Your task to perform on an android device: Empty the shopping cart on target.com. Search for "panasonic triple a" on target.com, select the first entry, add it to the cart, then select checkout. Image 0: 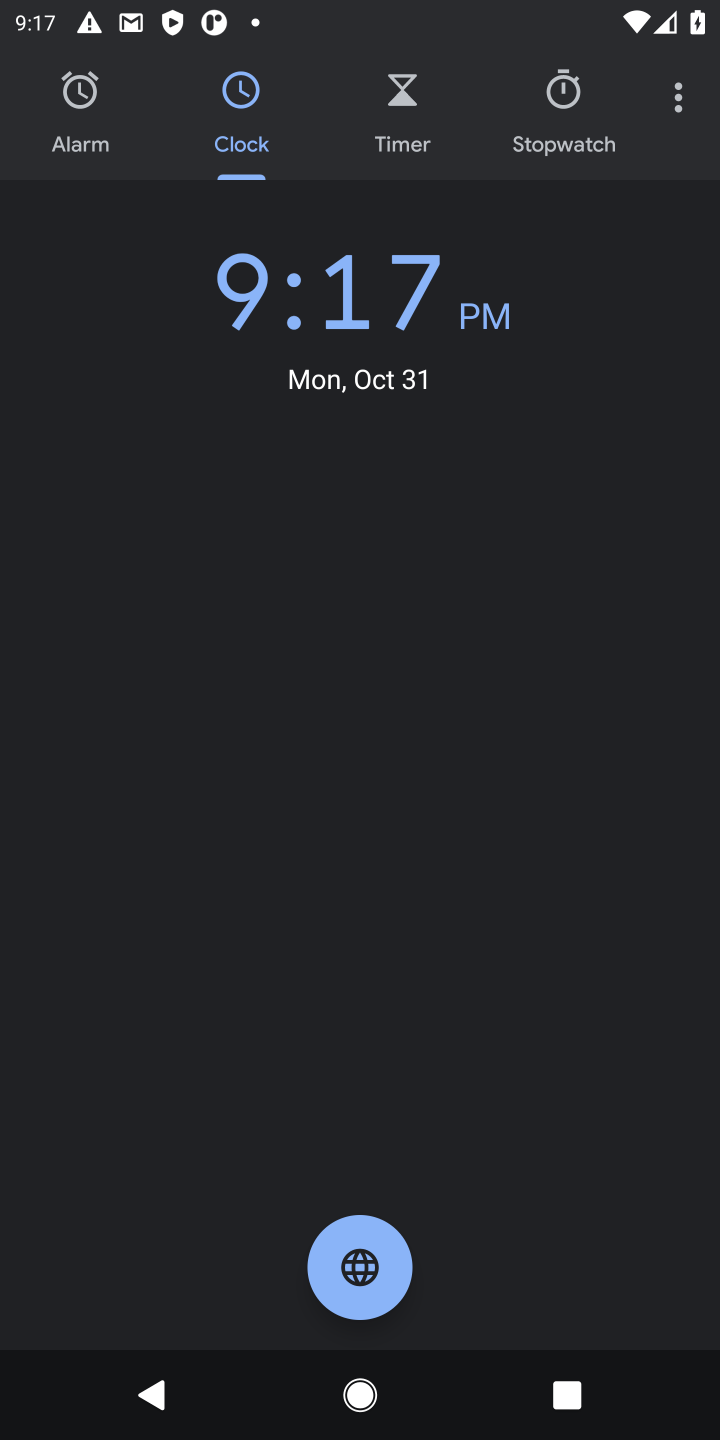
Step 0: press home button
Your task to perform on an android device: Empty the shopping cart on target.com. Search for "panasonic triple a" on target.com, select the first entry, add it to the cart, then select checkout. Image 1: 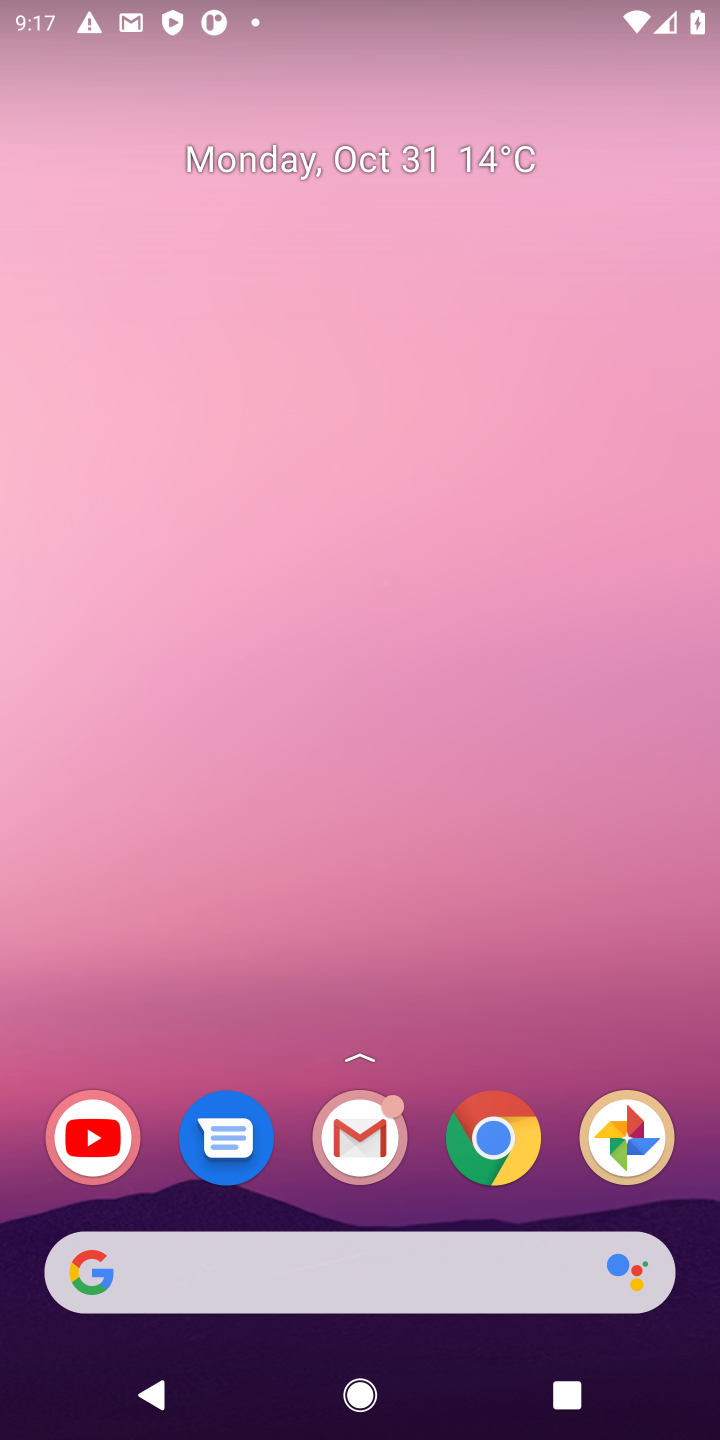
Step 1: click (501, 1130)
Your task to perform on an android device: Empty the shopping cart on target.com. Search for "panasonic triple a" on target.com, select the first entry, add it to the cart, then select checkout. Image 2: 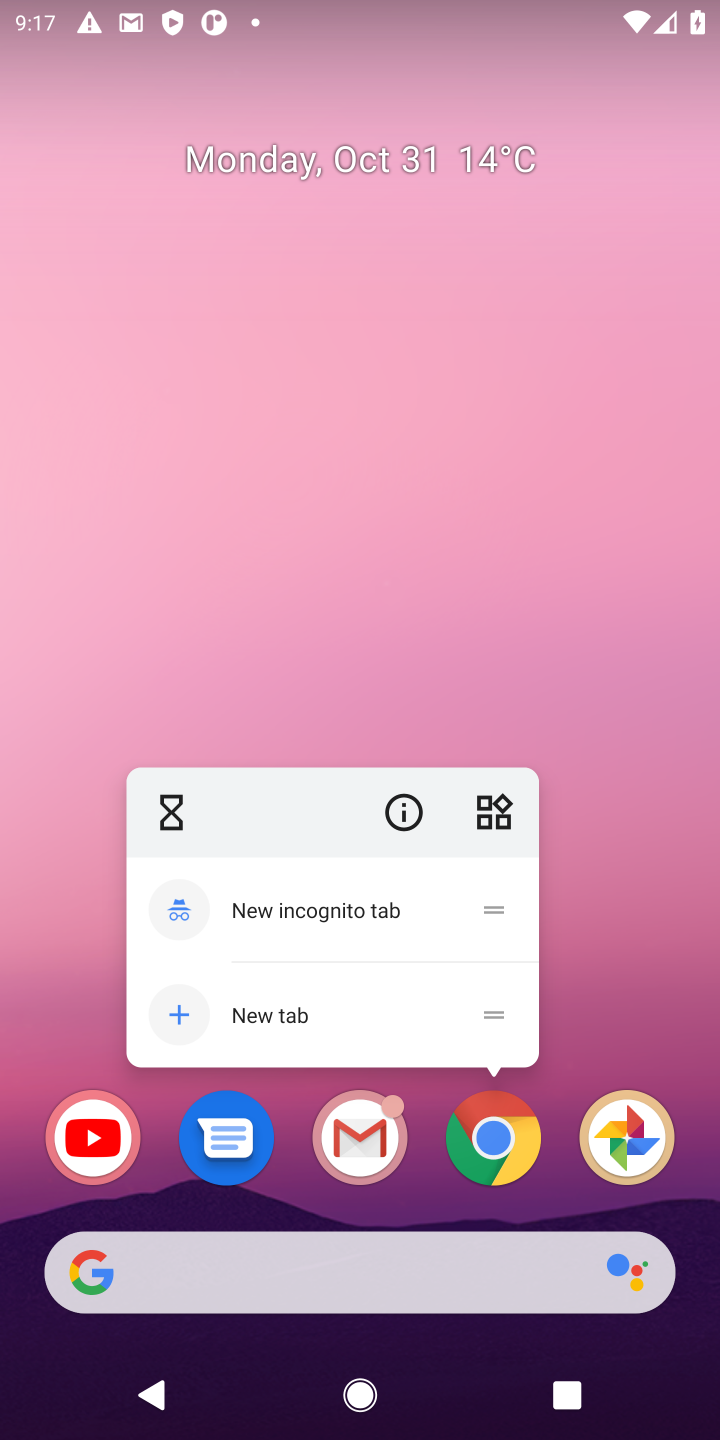
Step 2: click (514, 1125)
Your task to perform on an android device: Empty the shopping cart on target.com. Search for "panasonic triple a" on target.com, select the first entry, add it to the cart, then select checkout. Image 3: 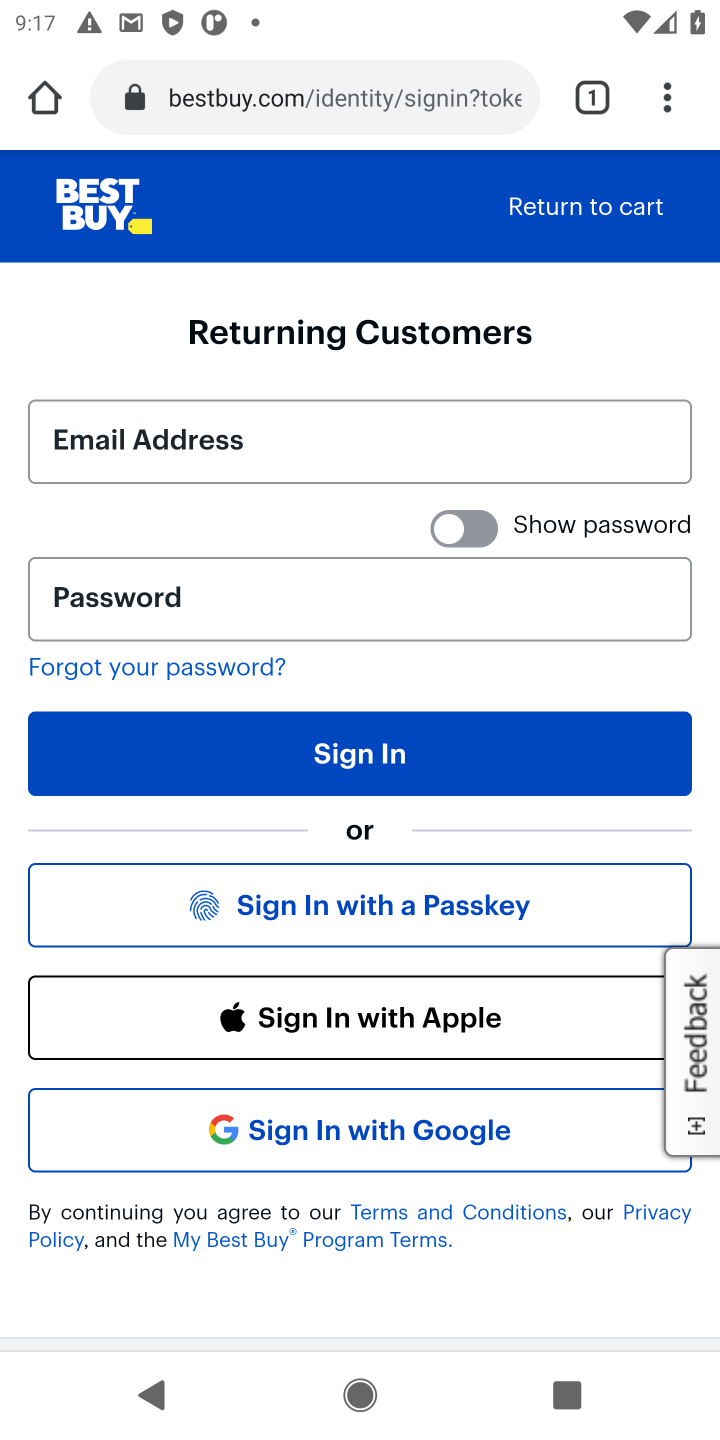
Step 3: click (239, 82)
Your task to perform on an android device: Empty the shopping cart on target.com. Search for "panasonic triple a" on target.com, select the first entry, add it to the cart, then select checkout. Image 4: 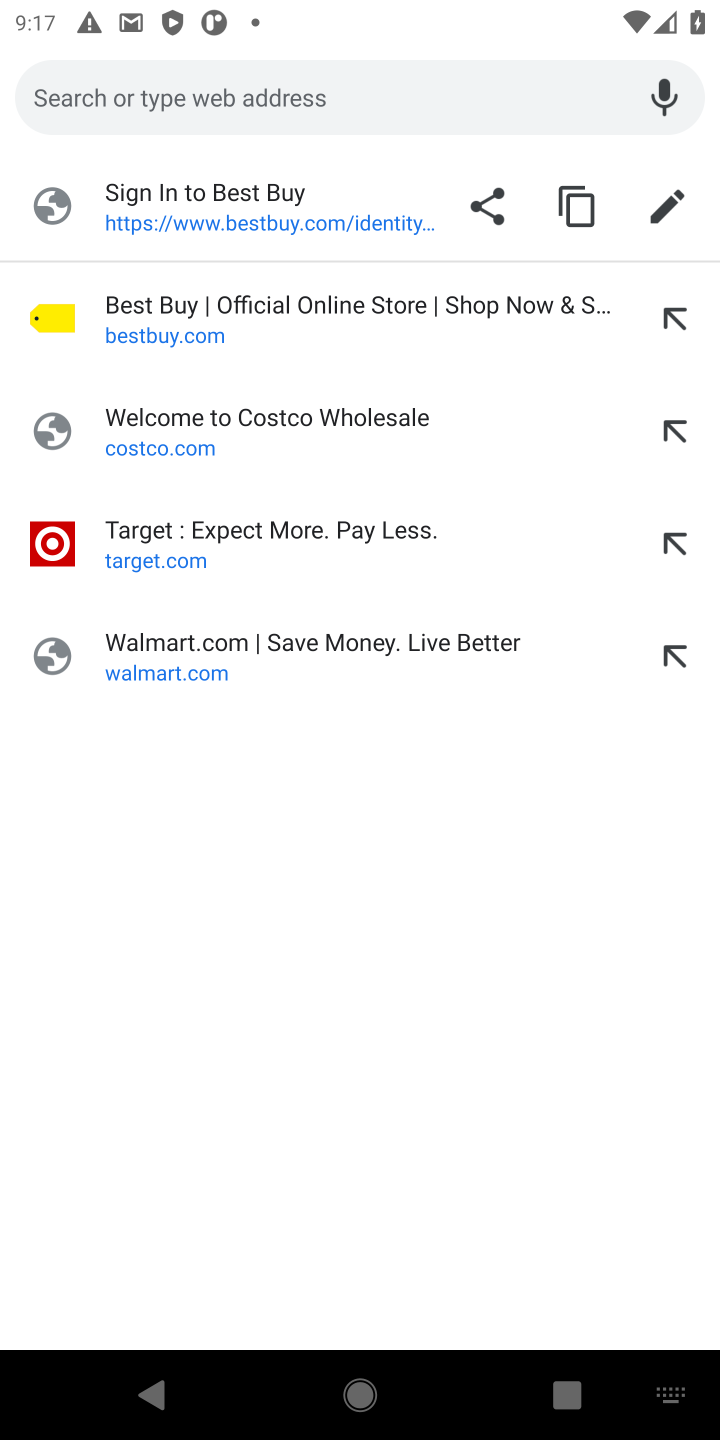
Step 4: type "target.com"
Your task to perform on an android device: Empty the shopping cart on target.com. Search for "panasonic triple a" on target.com, select the first entry, add it to the cart, then select checkout. Image 5: 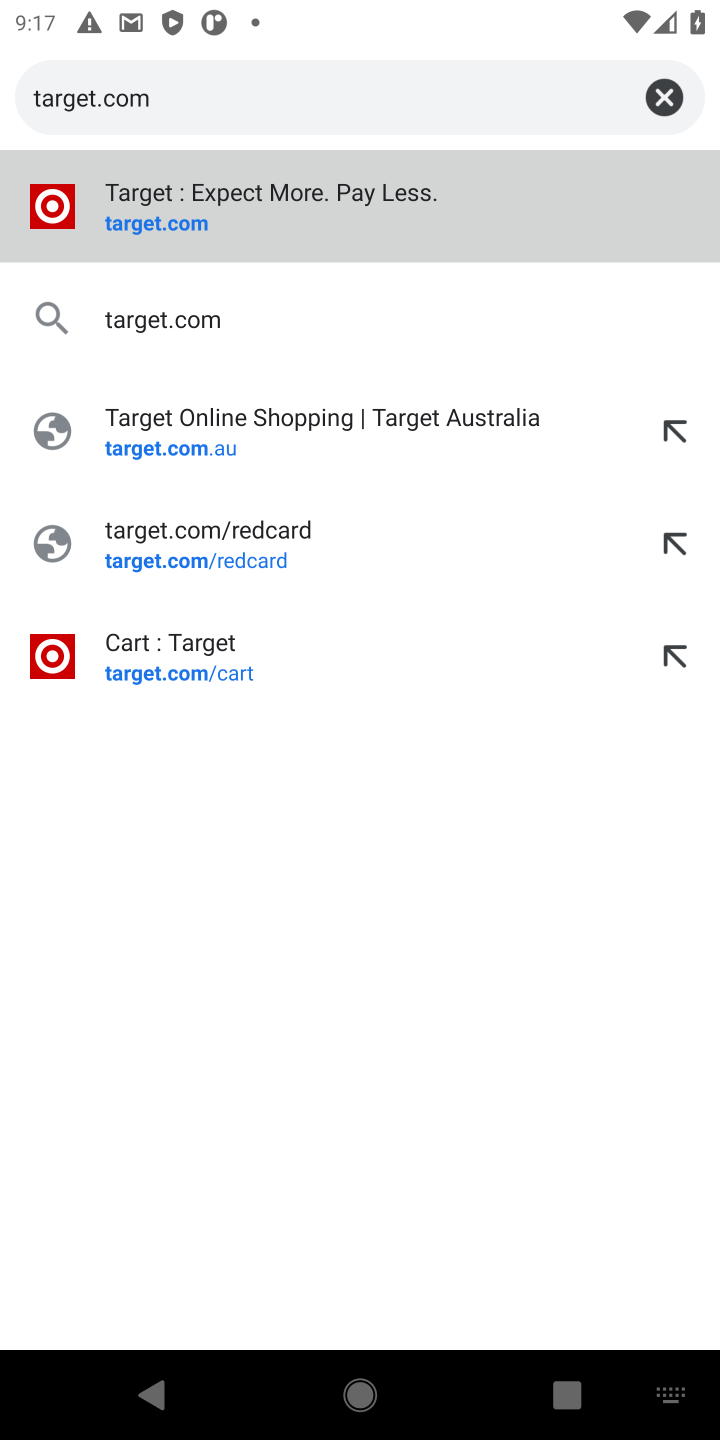
Step 5: click (136, 225)
Your task to perform on an android device: Empty the shopping cart on target.com. Search for "panasonic triple a" on target.com, select the first entry, add it to the cart, then select checkout. Image 6: 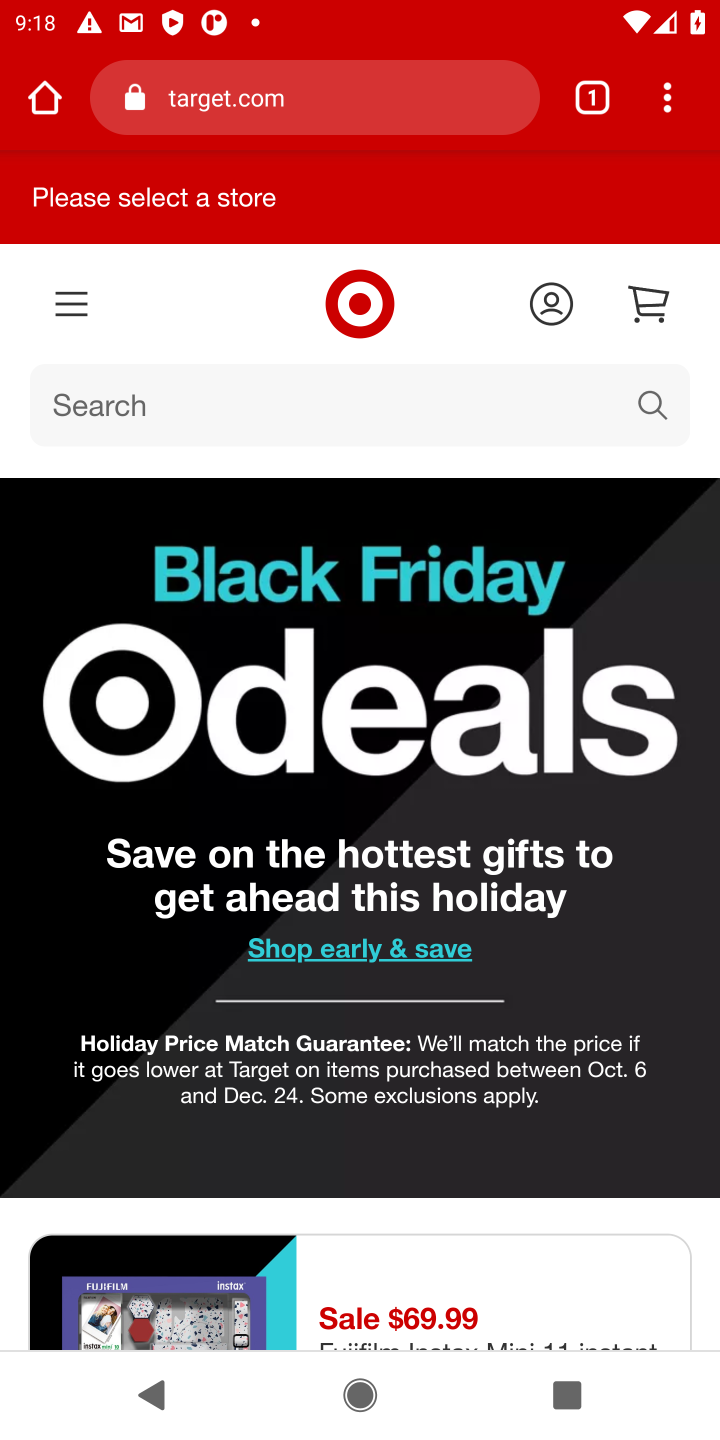
Step 6: click (418, 398)
Your task to perform on an android device: Empty the shopping cart on target.com. Search for "panasonic triple a" on target.com, select the first entry, add it to the cart, then select checkout. Image 7: 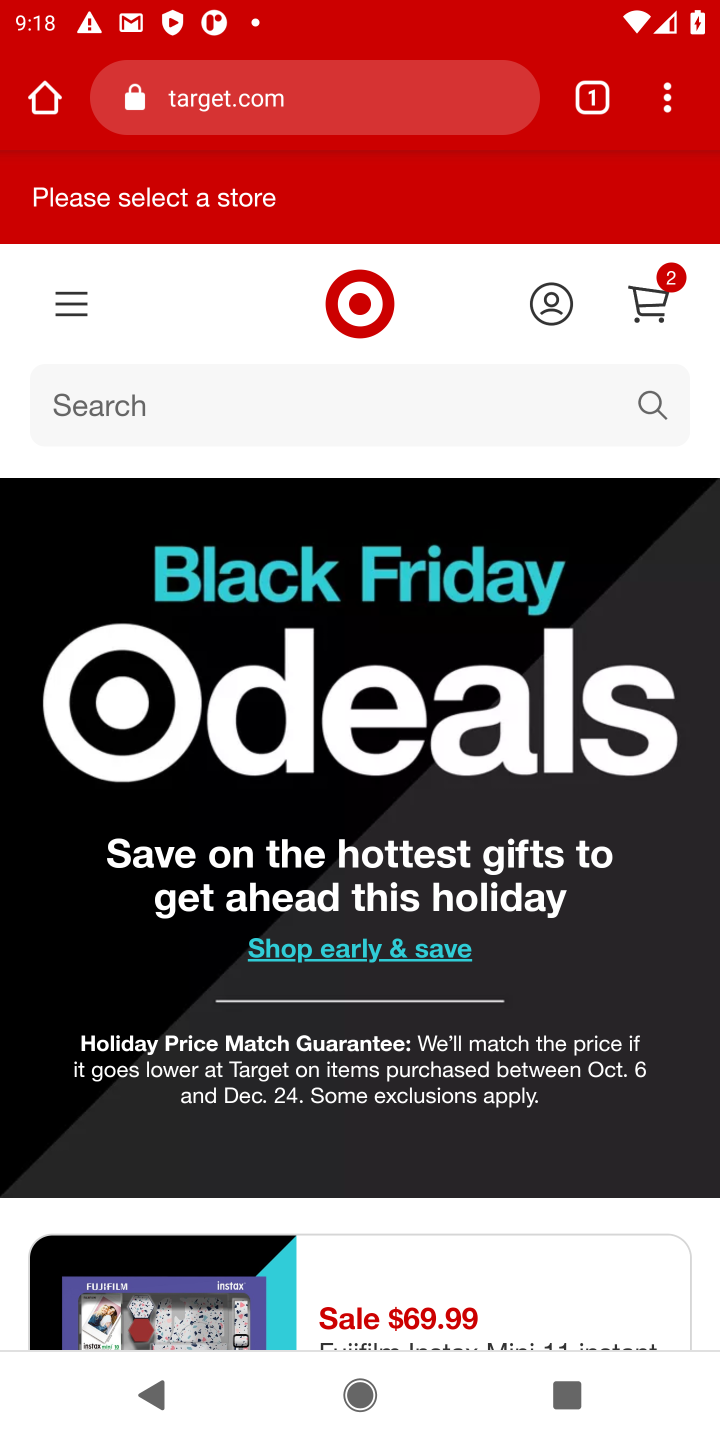
Step 7: click (500, 392)
Your task to perform on an android device: Empty the shopping cart on target.com. Search for "panasonic triple a" on target.com, select the first entry, add it to the cart, then select checkout. Image 8: 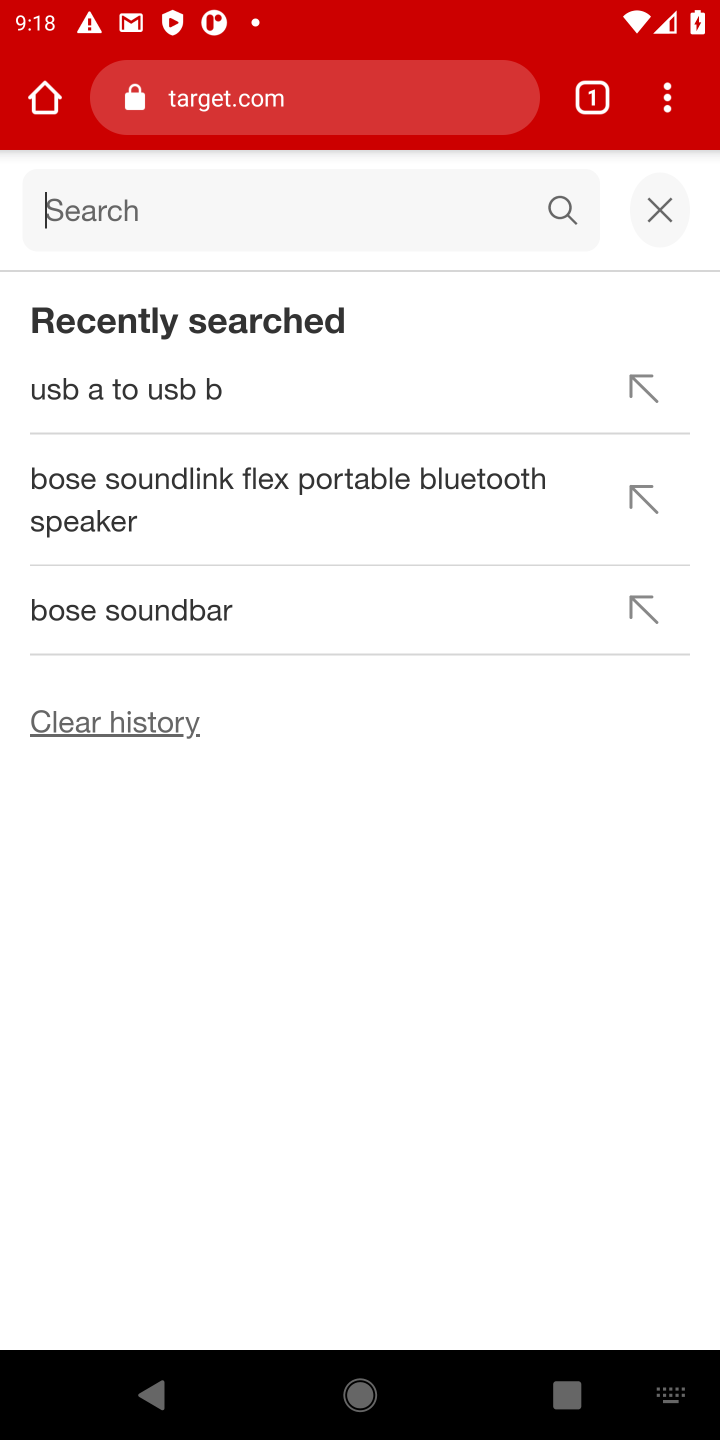
Step 8: type "panasonic triple "
Your task to perform on an android device: Empty the shopping cart on target.com. Search for "panasonic triple a" on target.com, select the first entry, add it to the cart, then select checkout. Image 9: 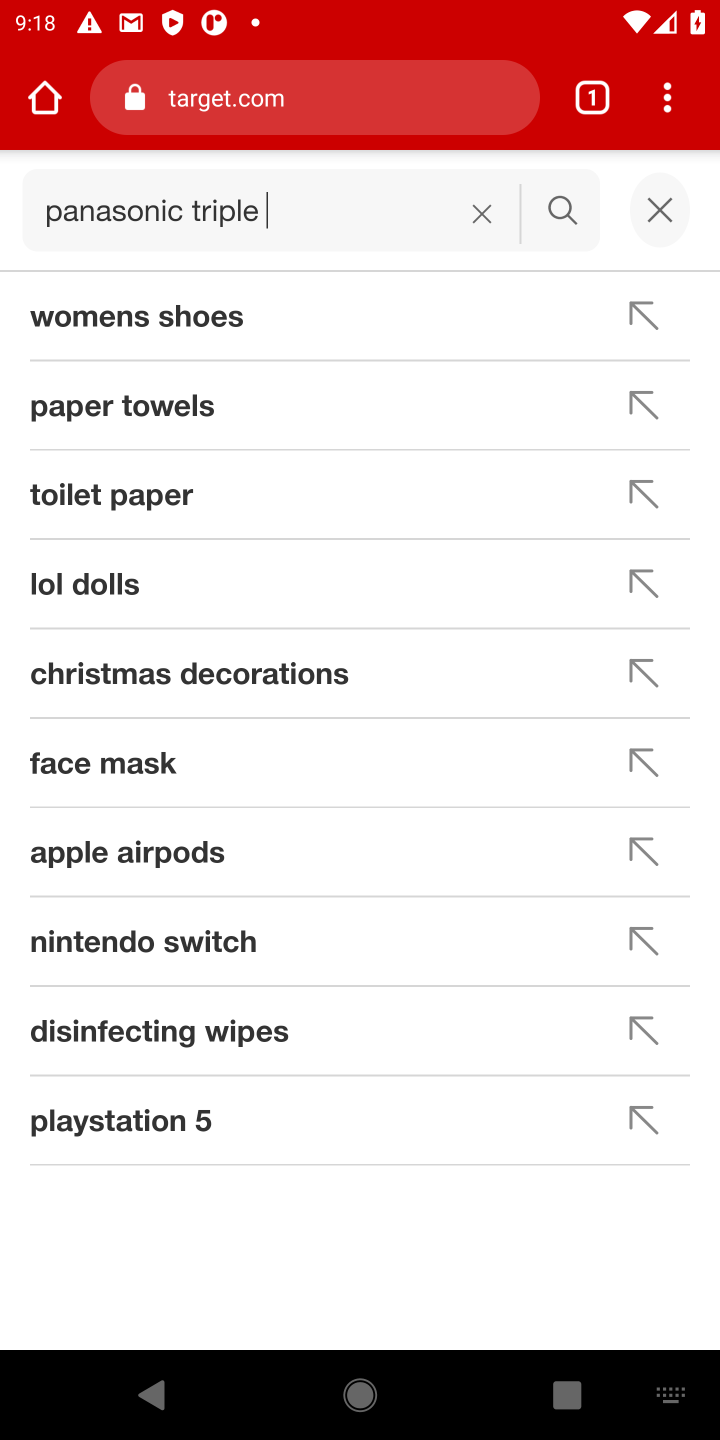
Step 9: type ""
Your task to perform on an android device: Empty the shopping cart on target.com. Search for "panasonic triple a" on target.com, select the first entry, add it to the cart, then select checkout. Image 10: 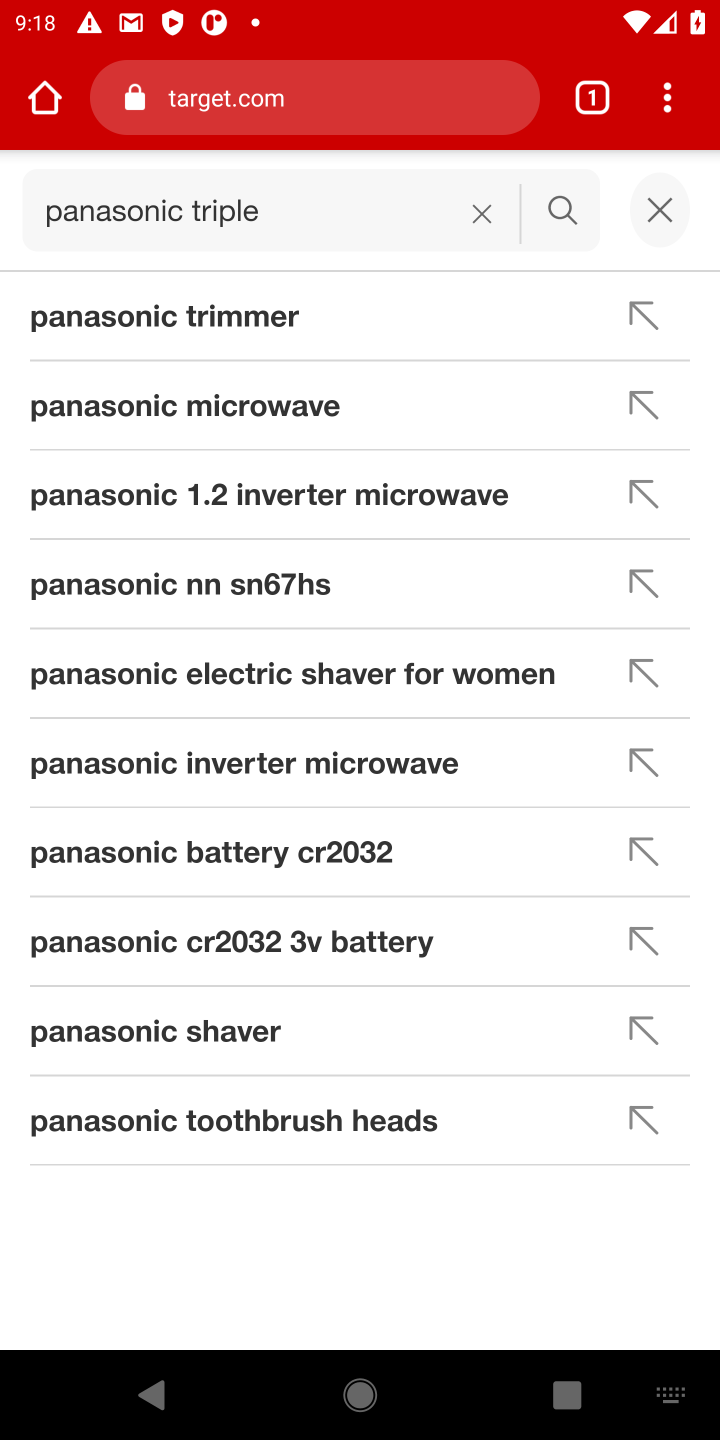
Step 10: click (205, 320)
Your task to perform on an android device: Empty the shopping cart on target.com. Search for "panasonic triple a" on target.com, select the first entry, add it to the cart, then select checkout. Image 11: 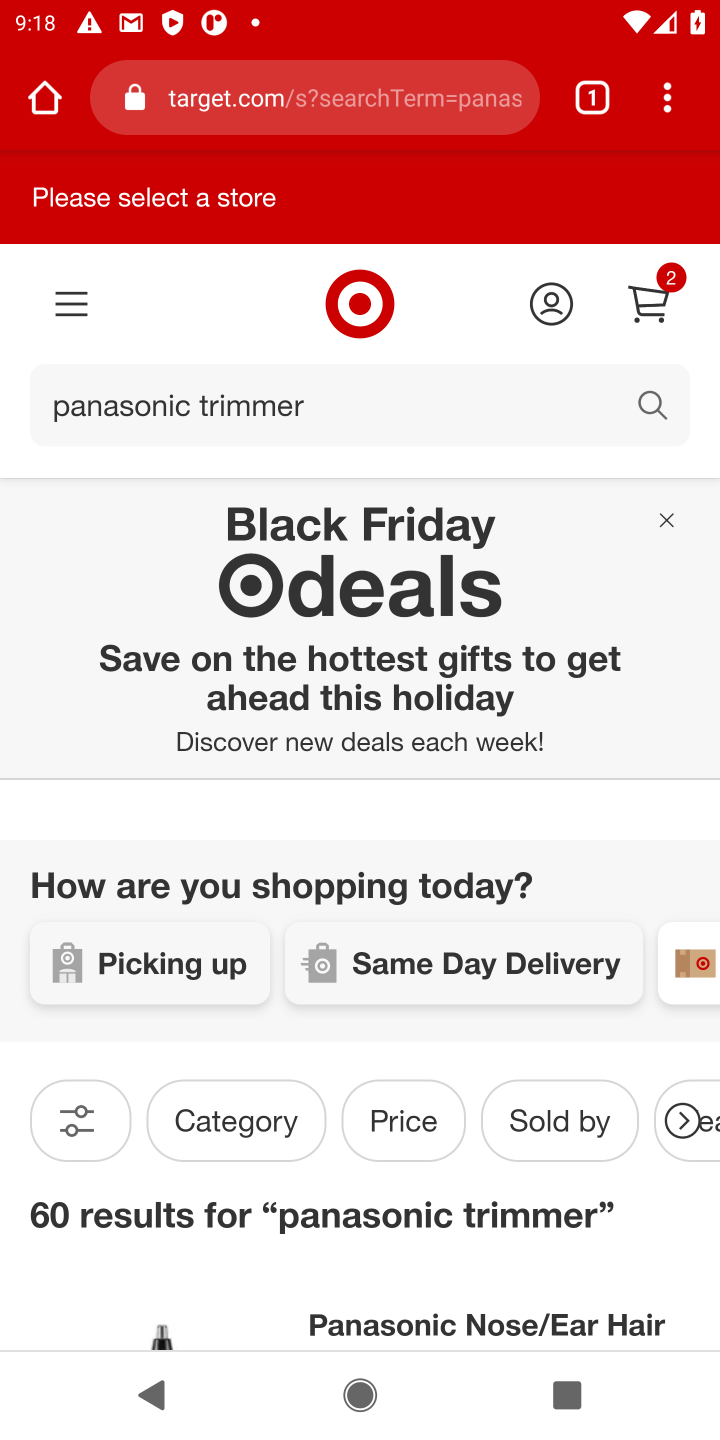
Step 11: drag from (247, 1220) to (424, 428)
Your task to perform on an android device: Empty the shopping cart on target.com. Search for "panasonic triple a" on target.com, select the first entry, add it to the cart, then select checkout. Image 12: 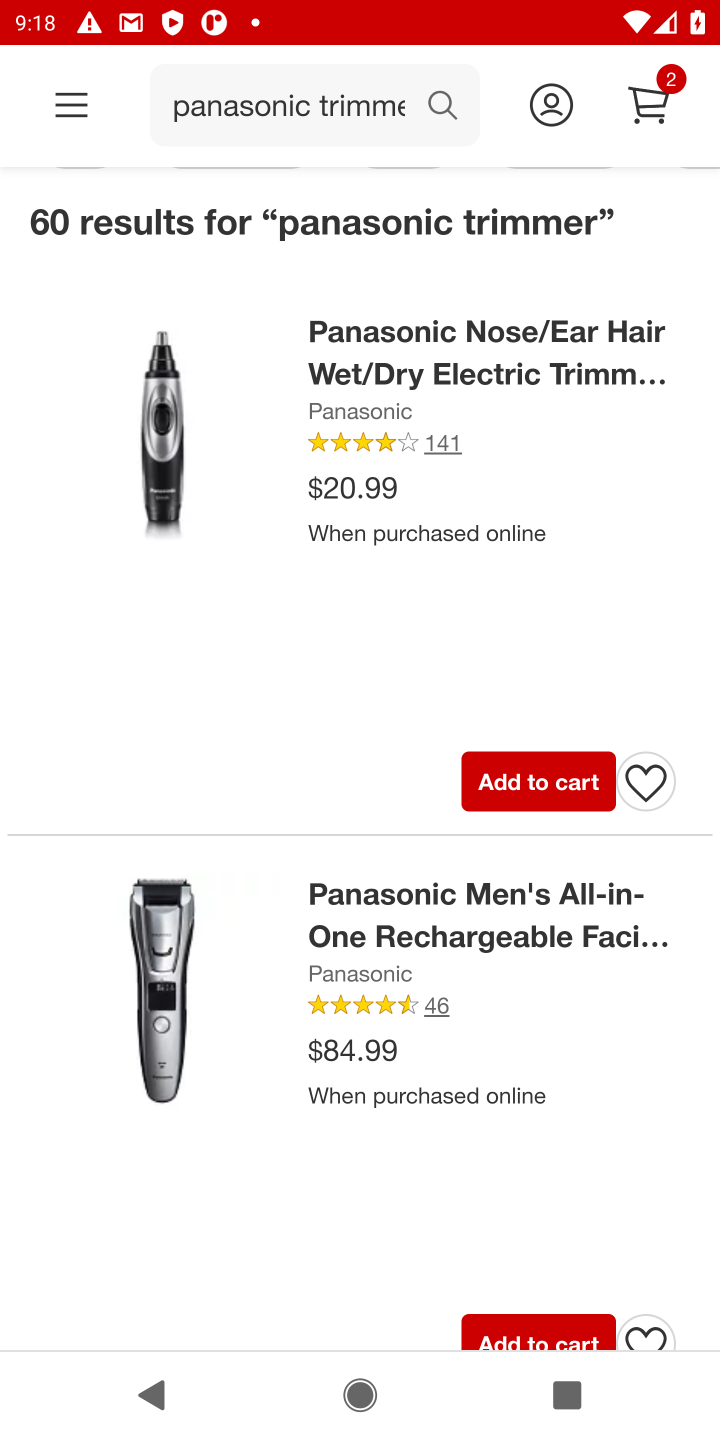
Step 12: drag from (437, 1106) to (412, 240)
Your task to perform on an android device: Empty the shopping cart on target.com. Search for "panasonic triple a" on target.com, select the first entry, add it to the cart, then select checkout. Image 13: 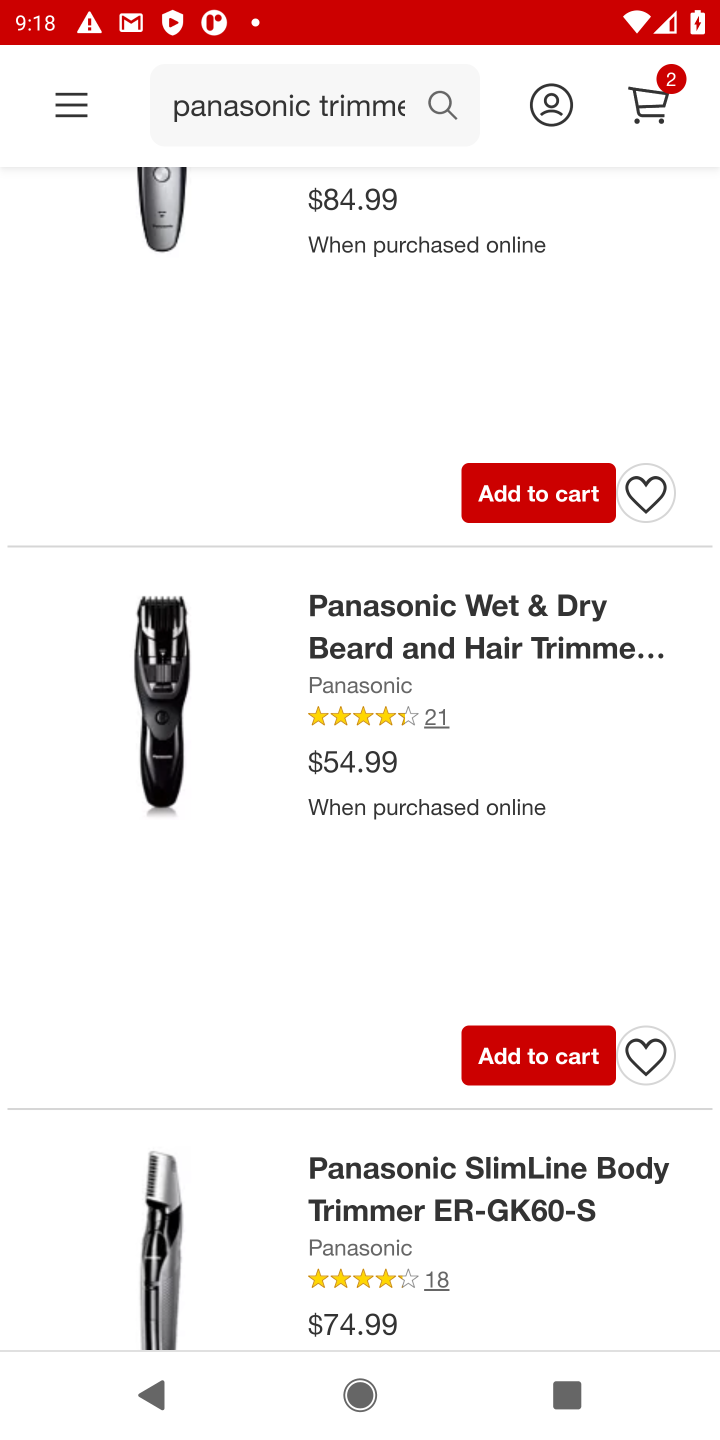
Step 13: drag from (366, 679) to (382, 190)
Your task to perform on an android device: Empty the shopping cart on target.com. Search for "panasonic triple a" on target.com, select the first entry, add it to the cart, then select checkout. Image 14: 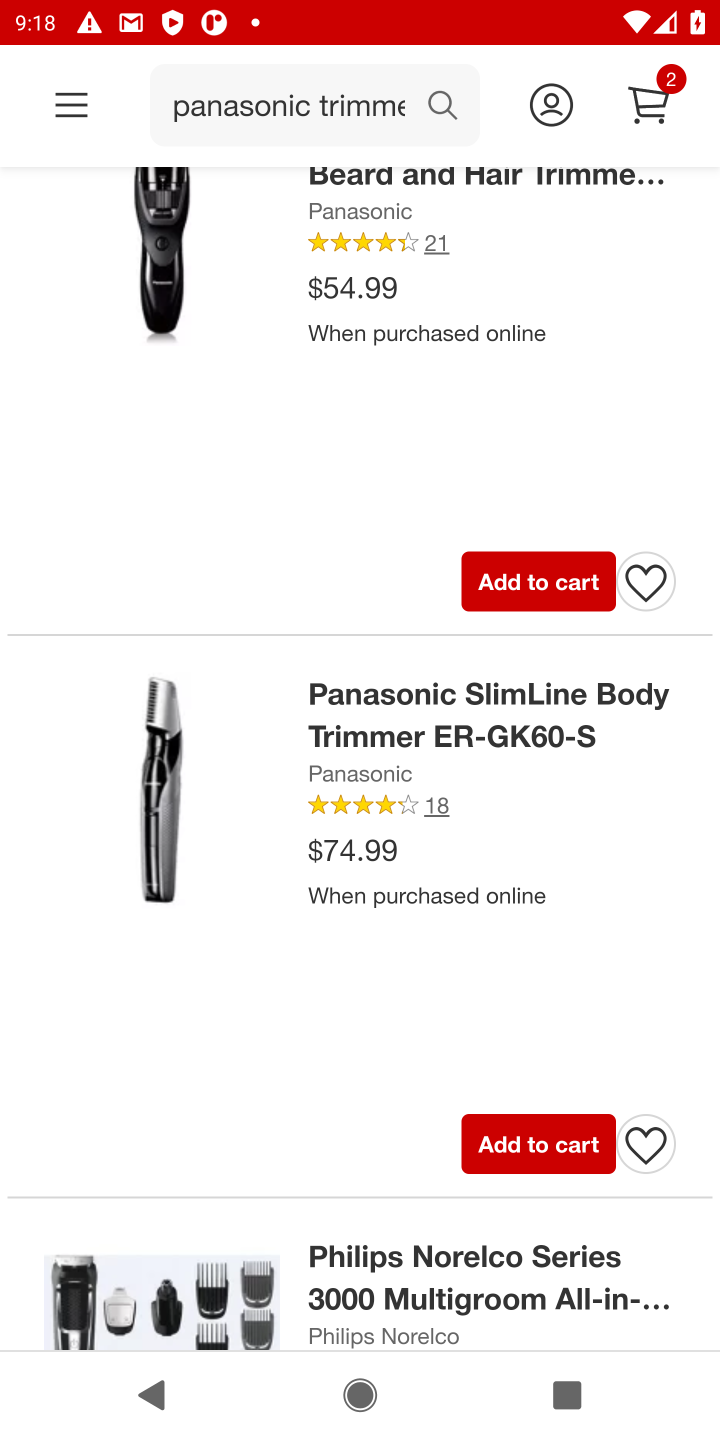
Step 14: drag from (369, 930) to (522, 404)
Your task to perform on an android device: Empty the shopping cart on target.com. Search for "panasonic triple a" on target.com, select the first entry, add it to the cart, then select checkout. Image 15: 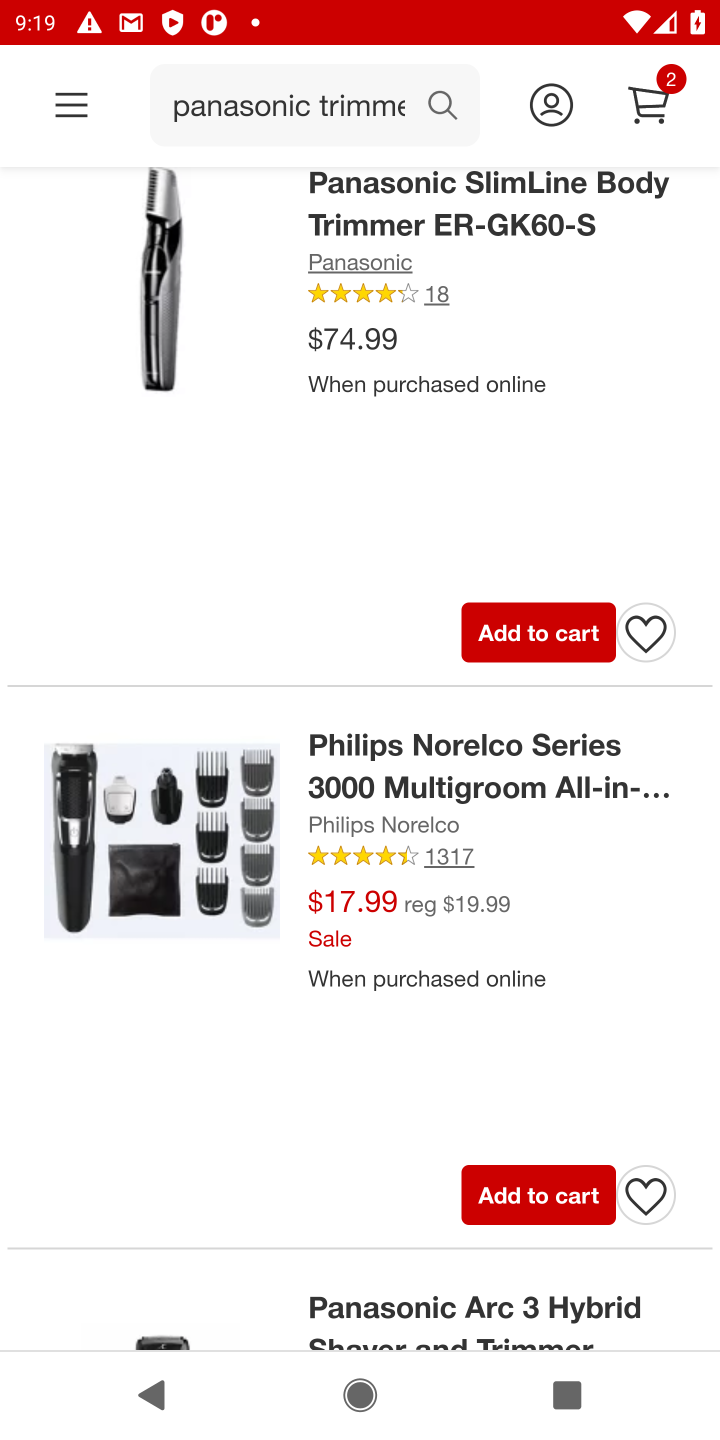
Step 15: drag from (140, 950) to (167, 708)
Your task to perform on an android device: Empty the shopping cart on target.com. Search for "panasonic triple a" on target.com, select the first entry, add it to the cart, then select checkout. Image 16: 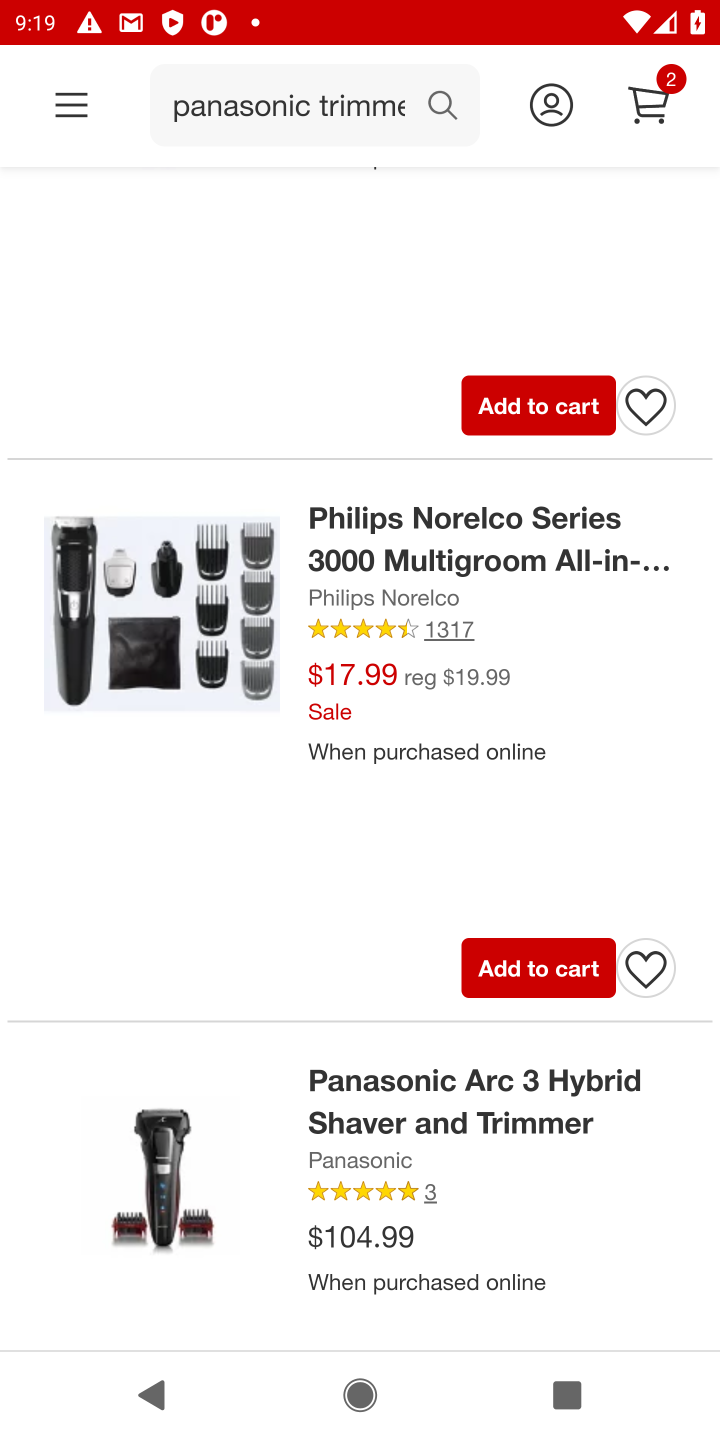
Step 16: click (513, 969)
Your task to perform on an android device: Empty the shopping cart on target.com. Search for "panasonic triple a" on target.com, select the first entry, add it to the cart, then select checkout. Image 17: 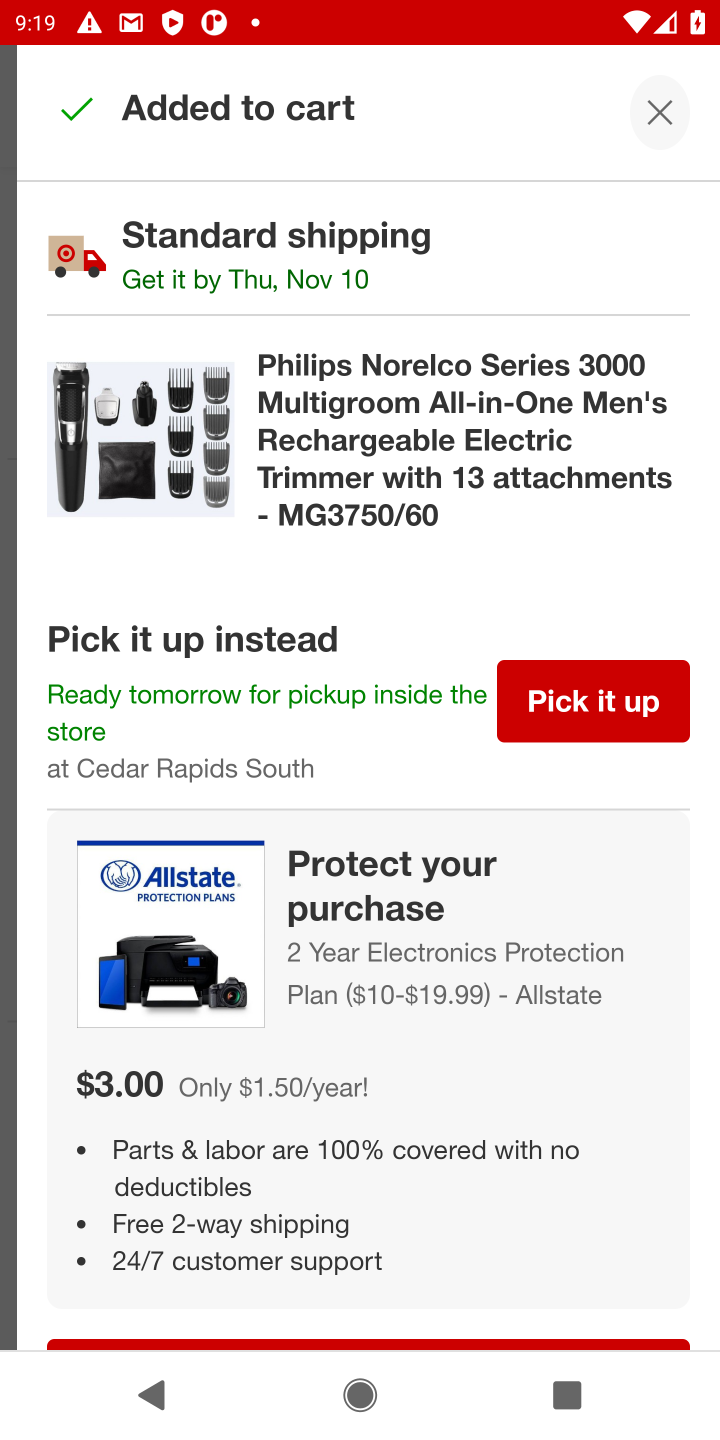
Step 17: click (568, 715)
Your task to perform on an android device: Empty the shopping cart on target.com. Search for "panasonic triple a" on target.com, select the first entry, add it to the cart, then select checkout. Image 18: 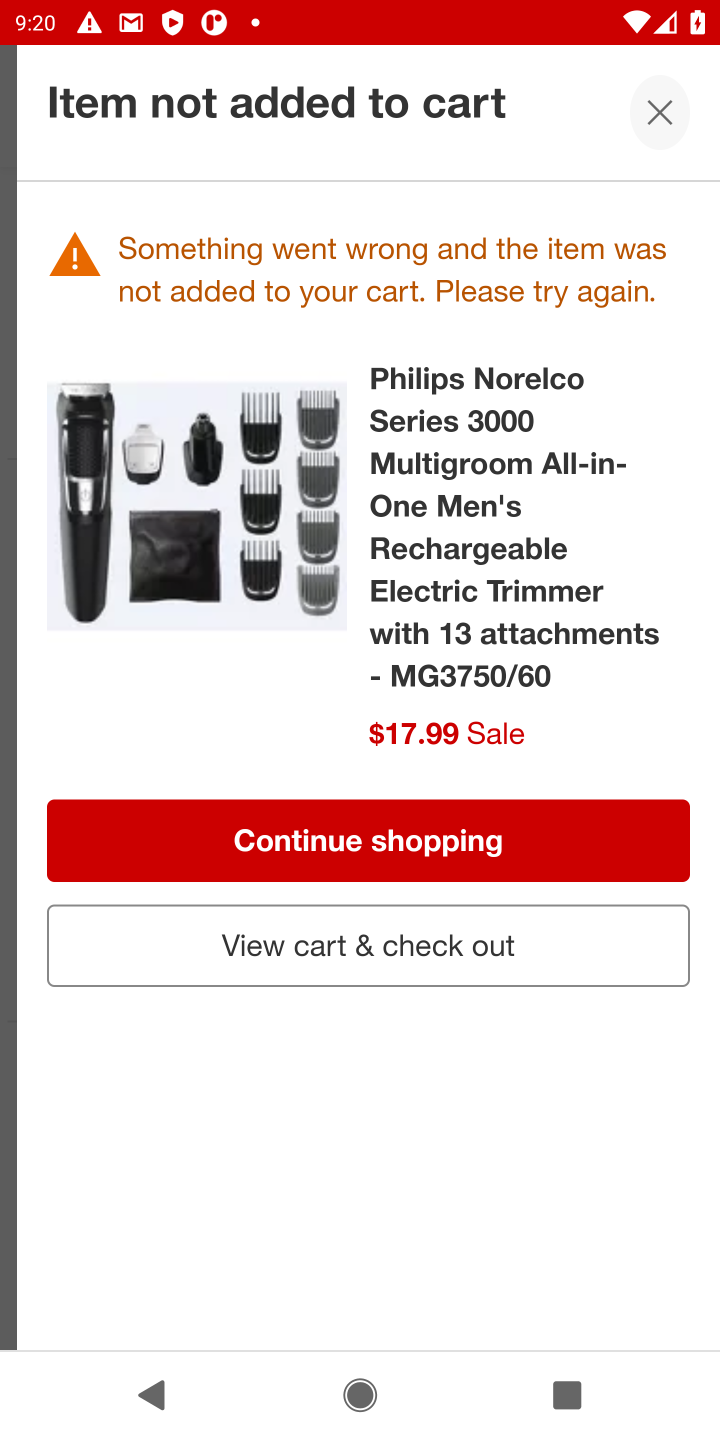
Step 18: click (332, 935)
Your task to perform on an android device: Empty the shopping cart on target.com. Search for "panasonic triple a" on target.com, select the first entry, add it to the cart, then select checkout. Image 19: 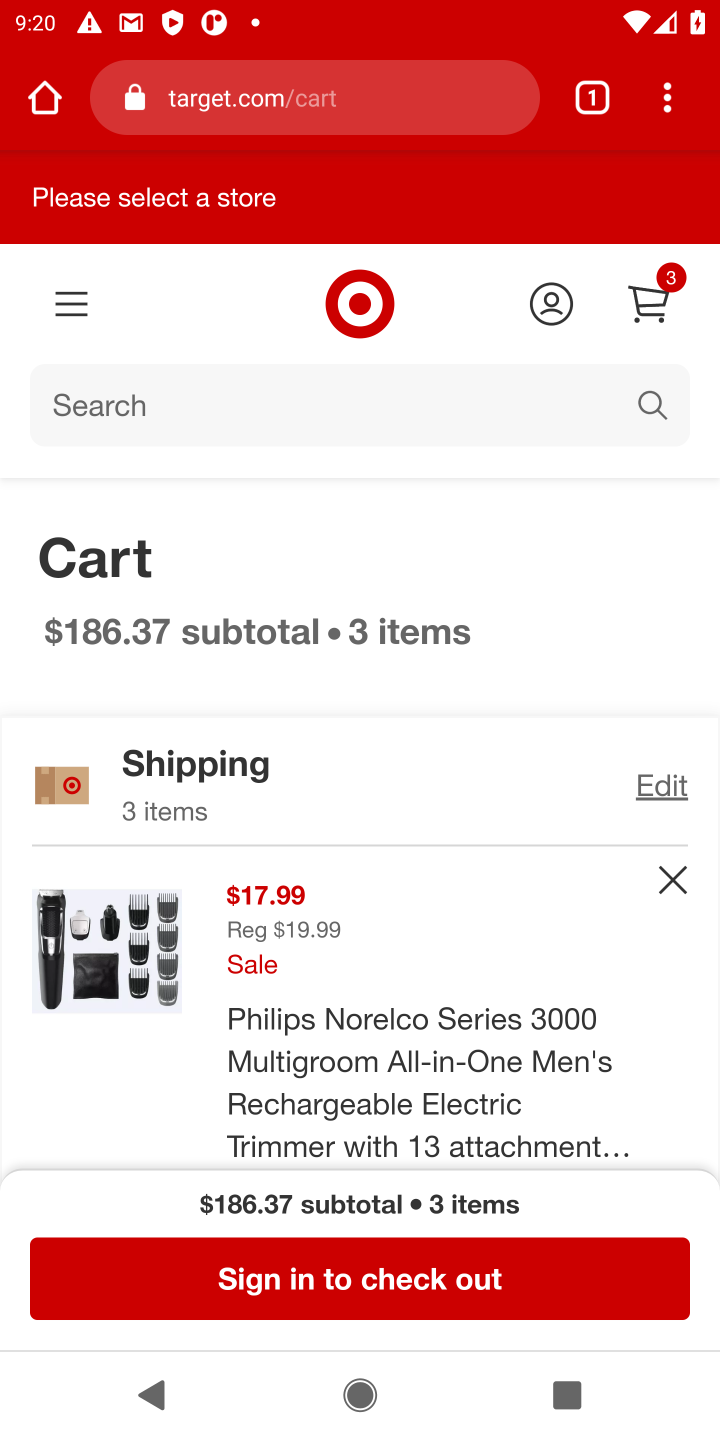
Step 19: click (493, 1293)
Your task to perform on an android device: Empty the shopping cart on target.com. Search for "panasonic triple a" on target.com, select the first entry, add it to the cart, then select checkout. Image 20: 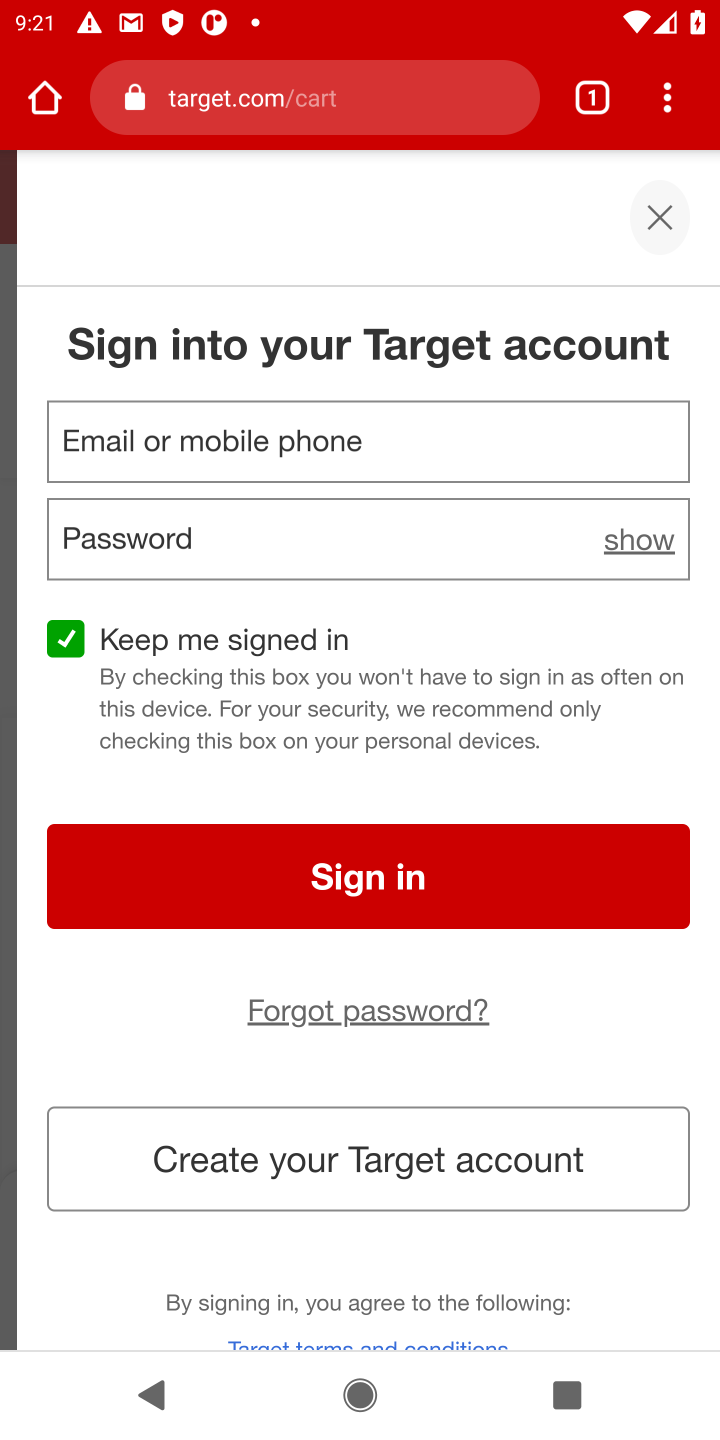
Step 20: click (664, 211)
Your task to perform on an android device: Empty the shopping cart on target.com. Search for "panasonic triple a" on target.com, select the first entry, add it to the cart, then select checkout. Image 21: 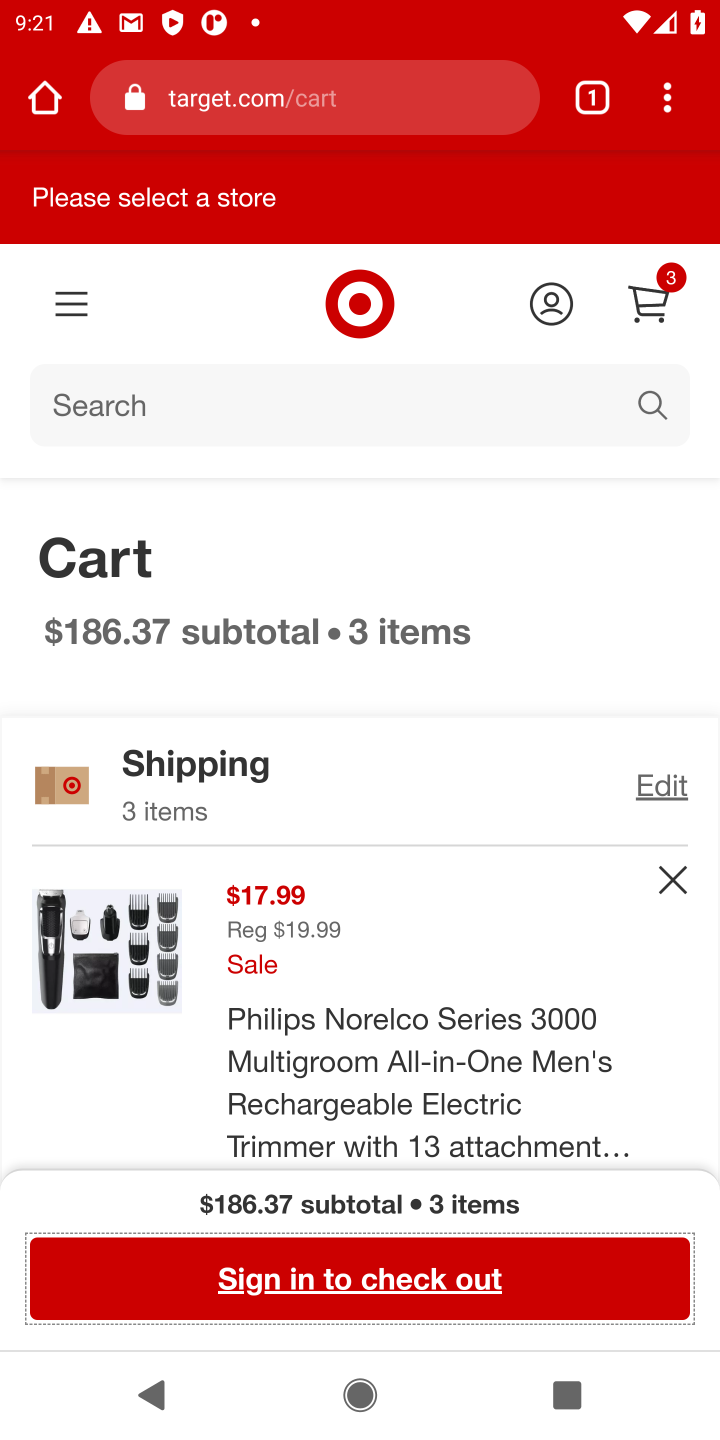
Step 21: task complete